Your task to perform on an android device: see sites visited before in the chrome app Image 0: 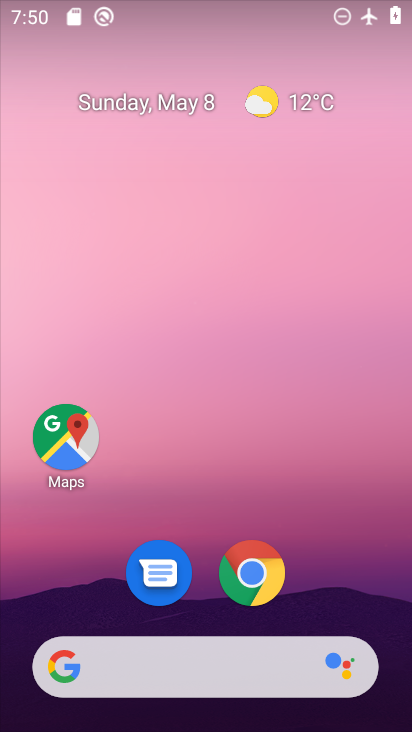
Step 0: click (258, 582)
Your task to perform on an android device: see sites visited before in the chrome app Image 1: 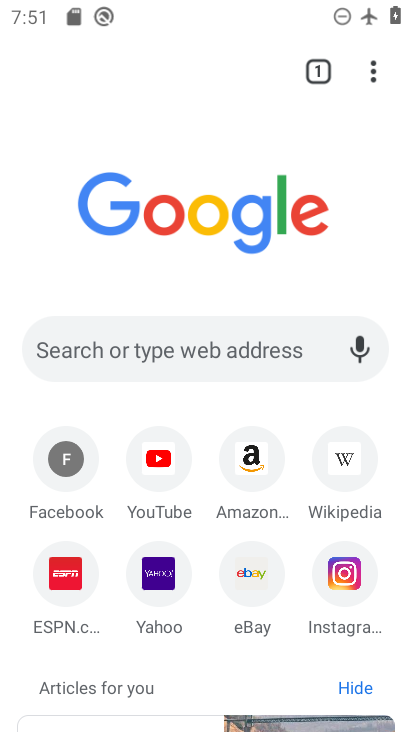
Step 1: task complete